Your task to perform on an android device: check google app version Image 0: 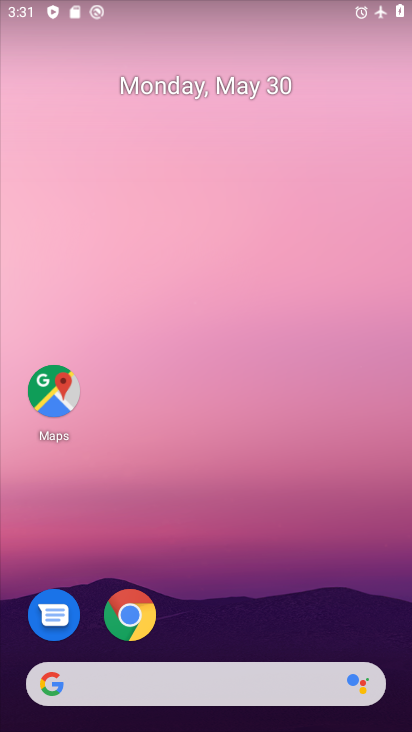
Step 0: click (272, 686)
Your task to perform on an android device: check google app version Image 1: 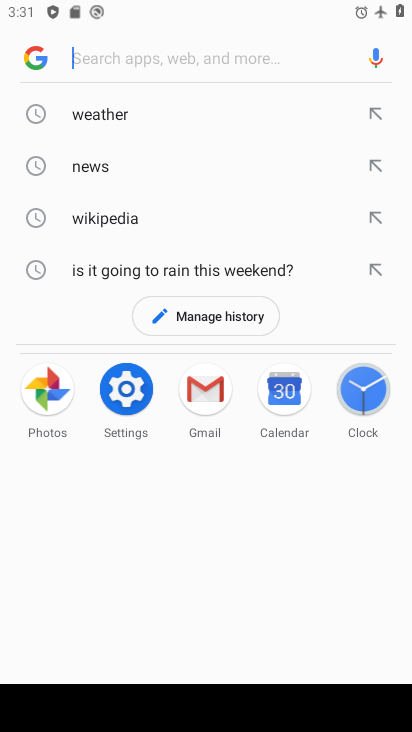
Step 1: click (35, 58)
Your task to perform on an android device: check google app version Image 2: 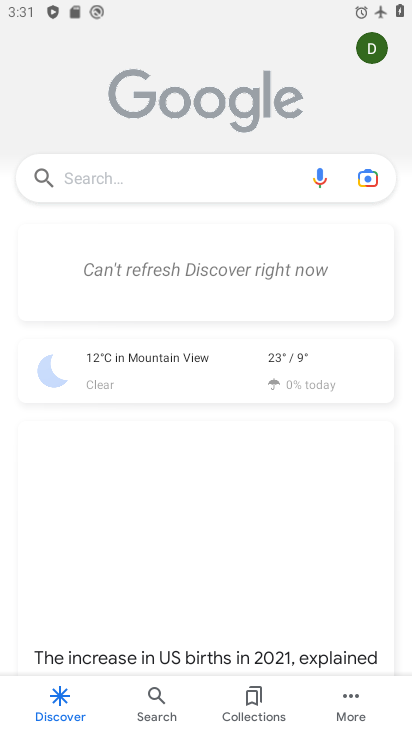
Step 2: click (353, 694)
Your task to perform on an android device: check google app version Image 3: 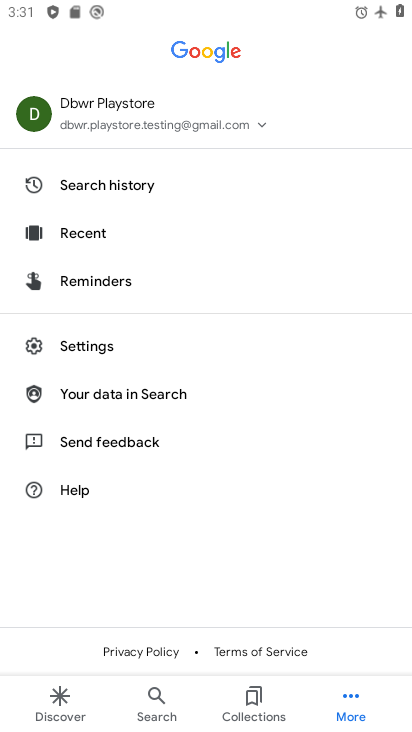
Step 3: click (113, 336)
Your task to perform on an android device: check google app version Image 4: 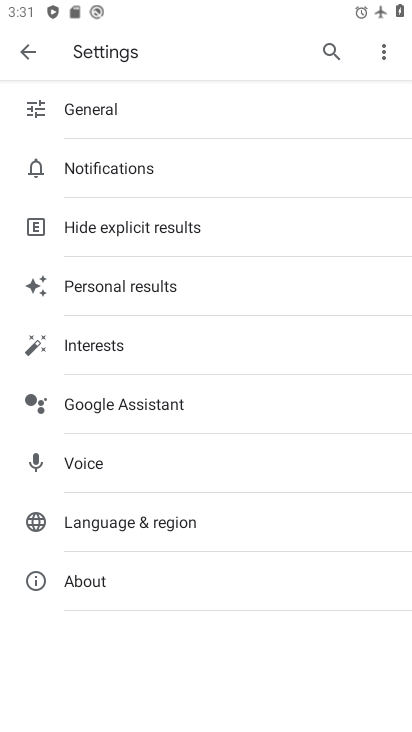
Step 4: click (89, 570)
Your task to perform on an android device: check google app version Image 5: 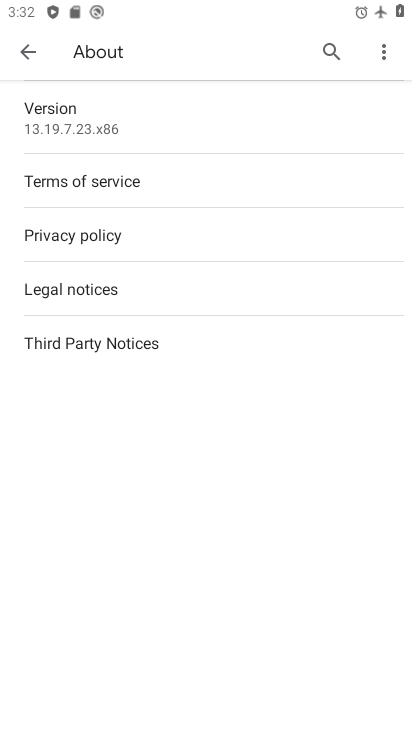
Step 5: task complete